Your task to perform on an android device: Open calendar and show me the fourth week of next month Image 0: 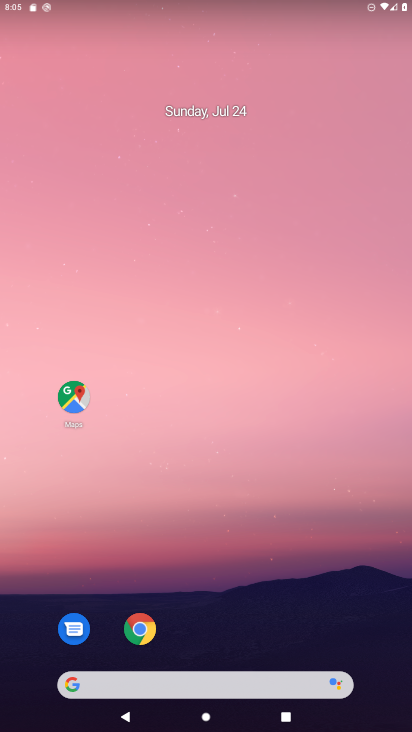
Step 0: drag from (351, 582) to (112, 12)
Your task to perform on an android device: Open calendar and show me the fourth week of next month Image 1: 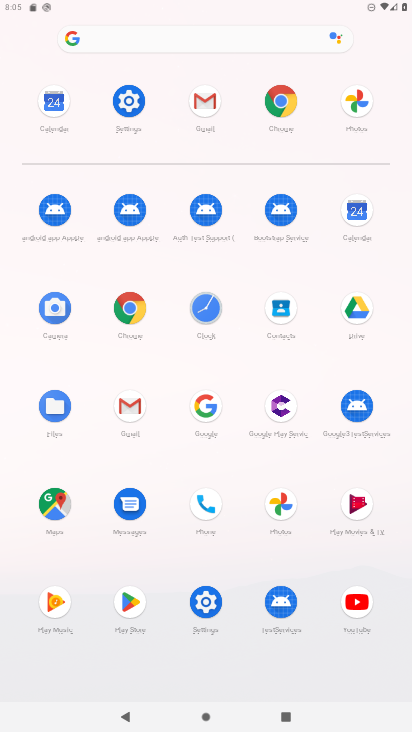
Step 1: click (355, 215)
Your task to perform on an android device: Open calendar and show me the fourth week of next month Image 2: 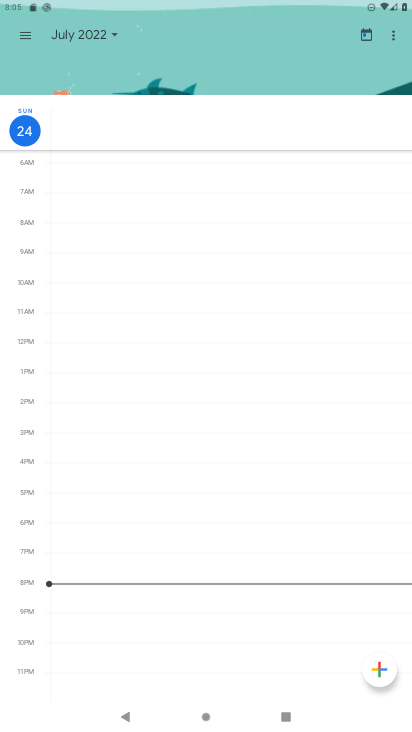
Step 2: click (88, 32)
Your task to perform on an android device: Open calendar and show me the fourth week of next month Image 3: 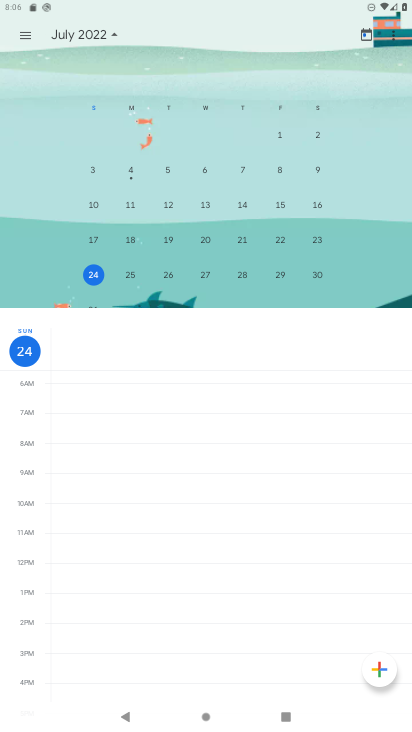
Step 3: drag from (325, 137) to (31, 165)
Your task to perform on an android device: Open calendar and show me the fourth week of next month Image 4: 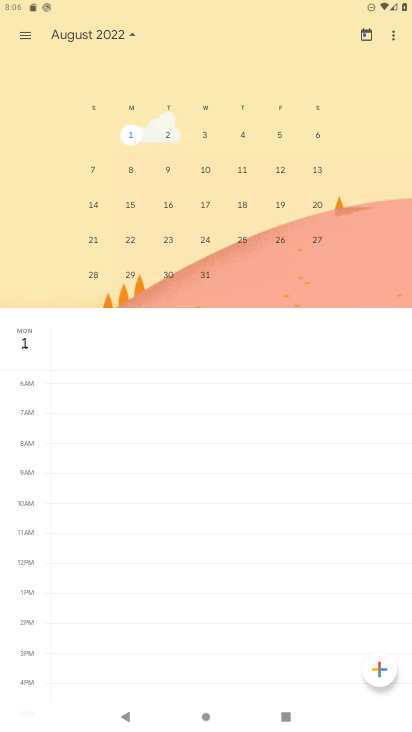
Step 4: click (95, 277)
Your task to perform on an android device: Open calendar and show me the fourth week of next month Image 5: 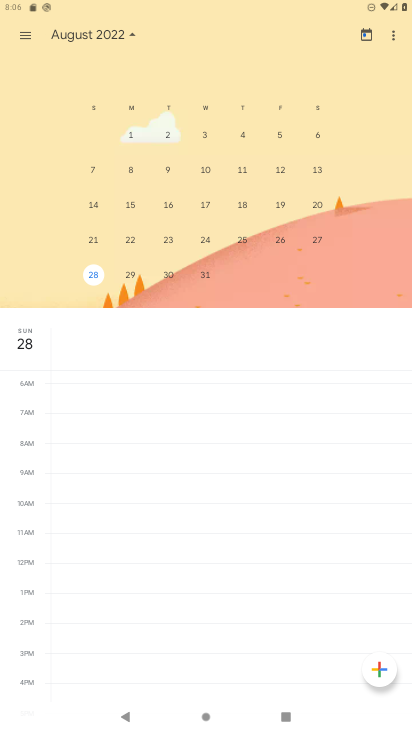
Step 5: task complete